Your task to perform on an android device: Open network settings Image 0: 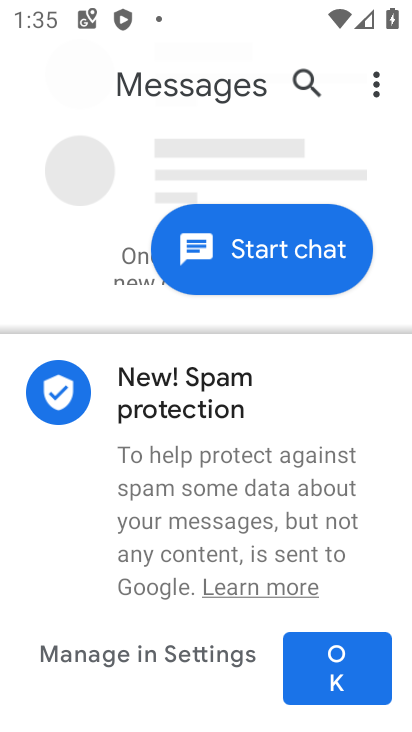
Step 0: drag from (265, 6) to (374, 471)
Your task to perform on an android device: Open network settings Image 1: 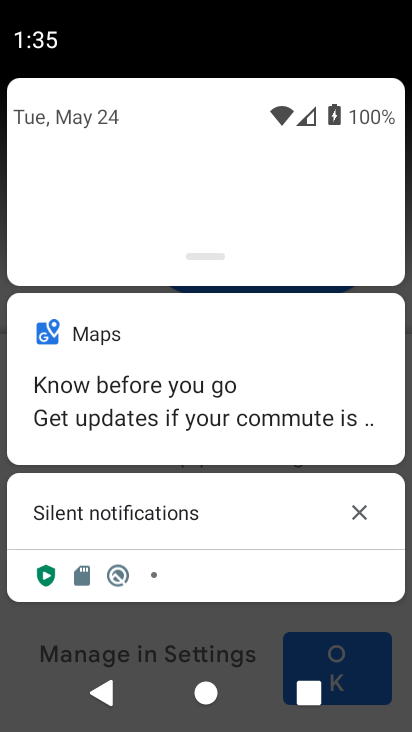
Step 1: drag from (214, 119) to (184, 553)
Your task to perform on an android device: Open network settings Image 2: 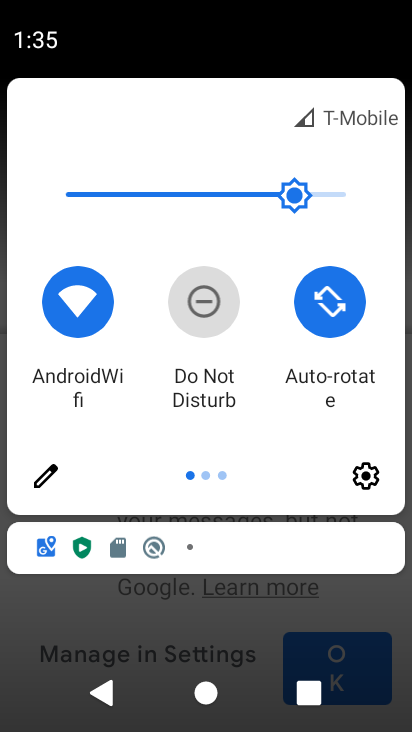
Step 2: drag from (385, 409) to (23, 402)
Your task to perform on an android device: Open network settings Image 3: 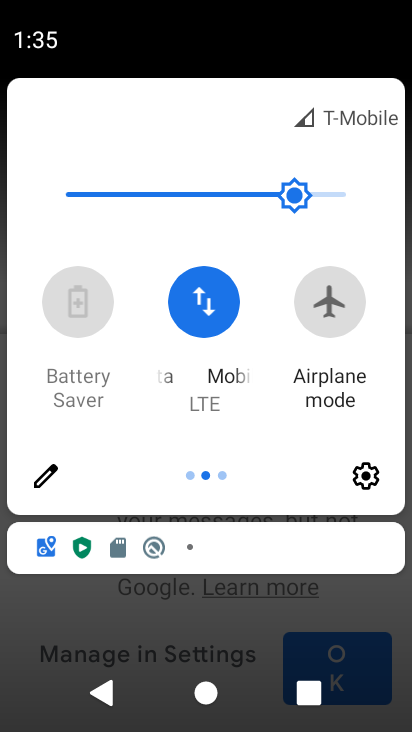
Step 3: click (223, 310)
Your task to perform on an android device: Open network settings Image 4: 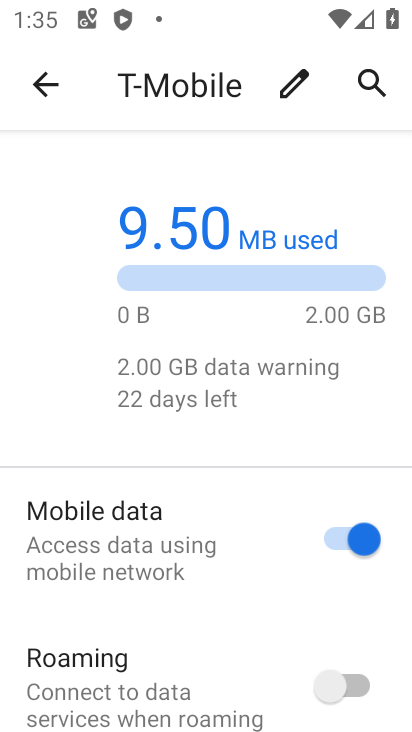
Step 4: task complete